Your task to perform on an android device: Is it going to rain today? Image 0: 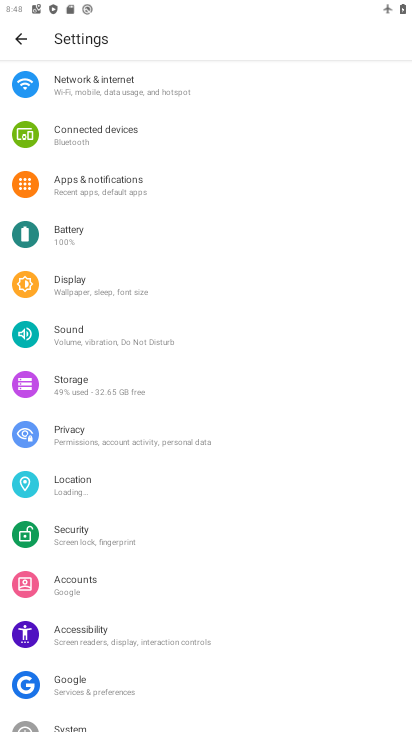
Step 0: press home button
Your task to perform on an android device: Is it going to rain today? Image 1: 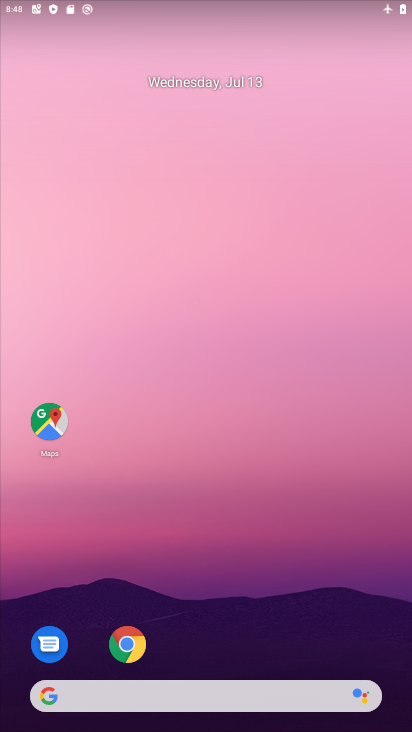
Step 1: drag from (216, 707) to (237, 217)
Your task to perform on an android device: Is it going to rain today? Image 2: 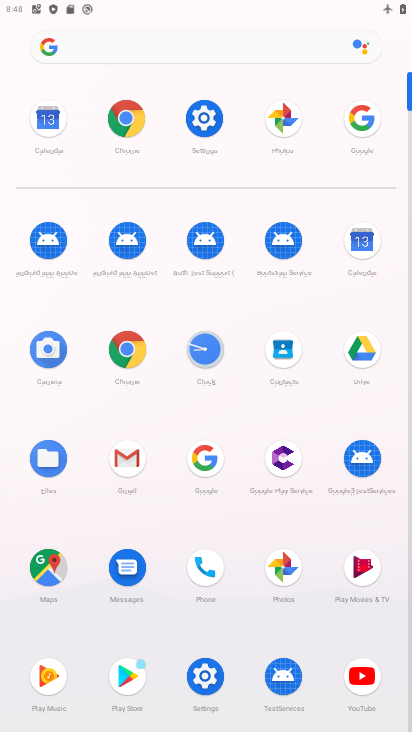
Step 2: click (199, 458)
Your task to perform on an android device: Is it going to rain today? Image 3: 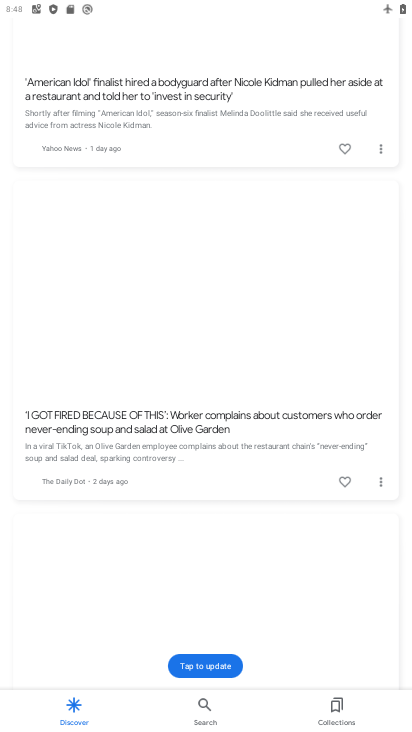
Step 3: click (73, 704)
Your task to perform on an android device: Is it going to rain today? Image 4: 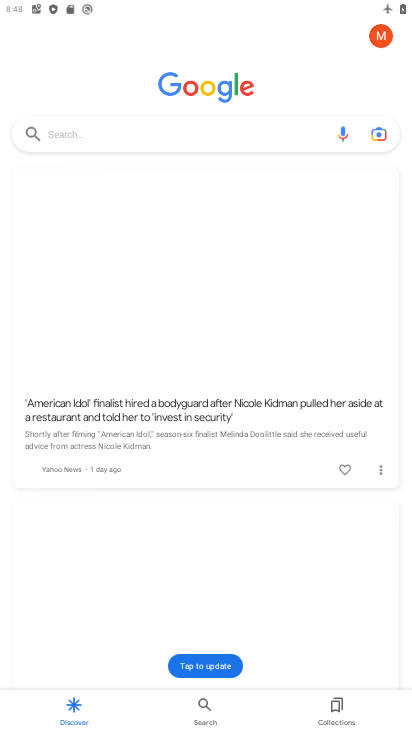
Step 4: click (189, 137)
Your task to perform on an android device: Is it going to rain today? Image 5: 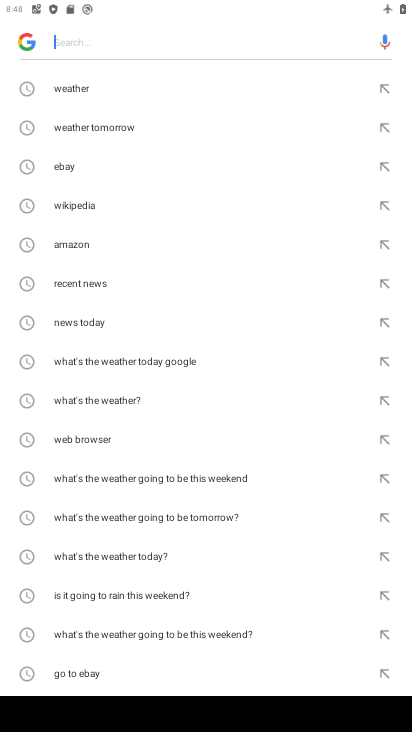
Step 5: click (70, 89)
Your task to perform on an android device: Is it going to rain today? Image 6: 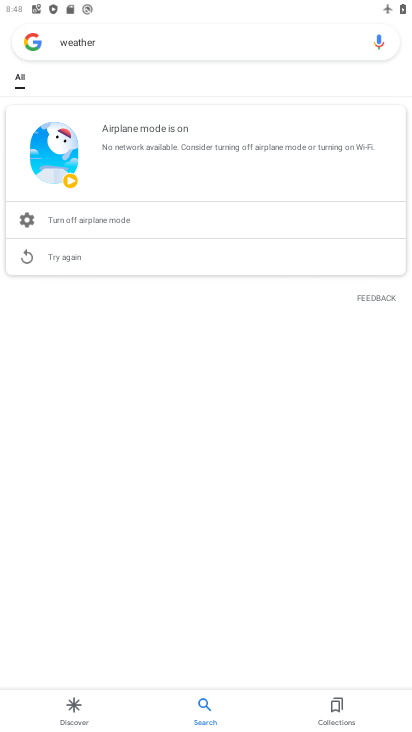
Step 6: task complete